Your task to perform on an android device: add a contact in the contacts app Image 0: 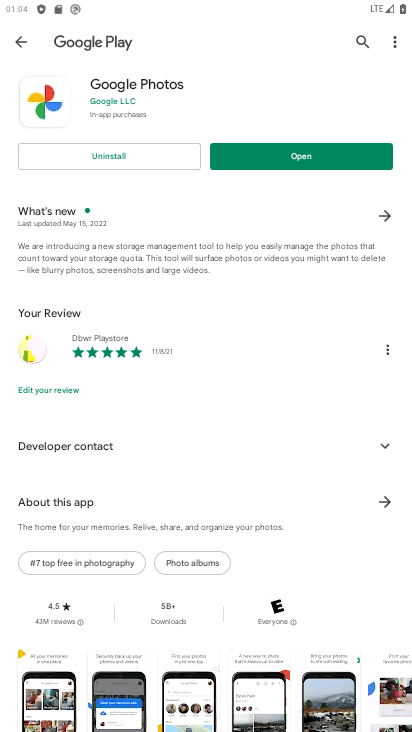
Step 0: press home button
Your task to perform on an android device: add a contact in the contacts app Image 1: 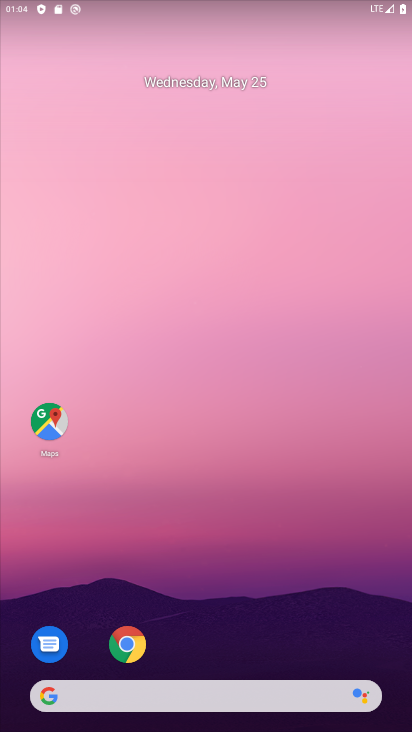
Step 1: drag from (290, 529) to (233, 152)
Your task to perform on an android device: add a contact in the contacts app Image 2: 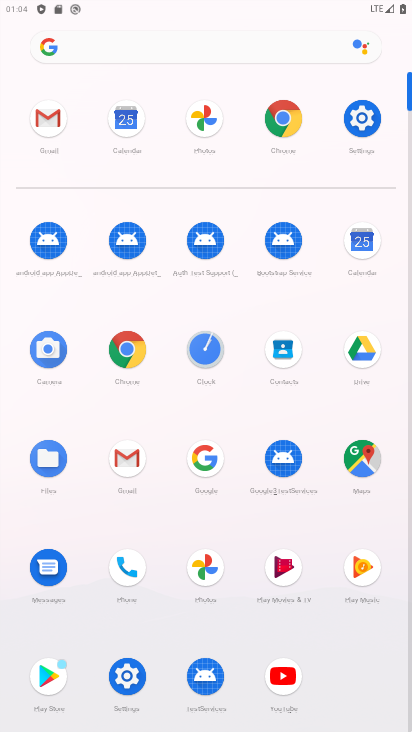
Step 2: click (279, 350)
Your task to perform on an android device: add a contact in the contacts app Image 3: 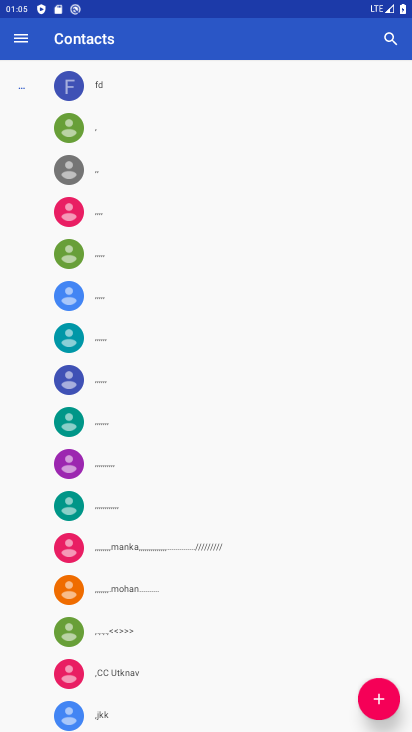
Step 3: click (383, 700)
Your task to perform on an android device: add a contact in the contacts app Image 4: 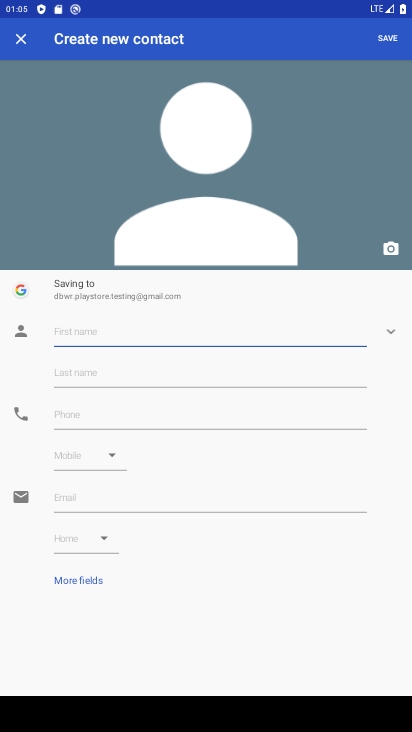
Step 4: type " vfjckd"
Your task to perform on an android device: add a contact in the contacts app Image 5: 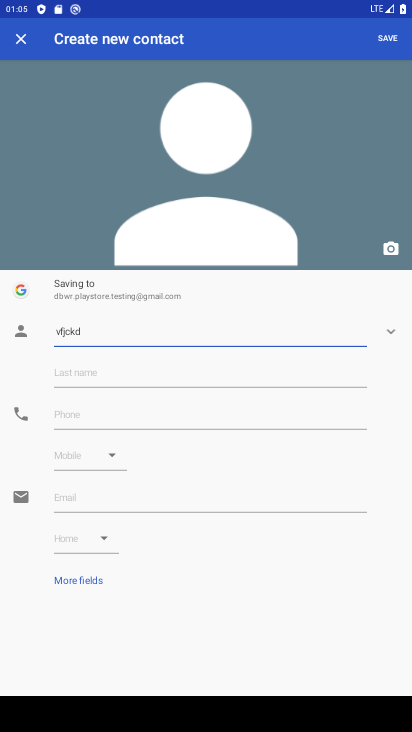
Step 5: click (108, 415)
Your task to perform on an android device: add a contact in the contacts app Image 6: 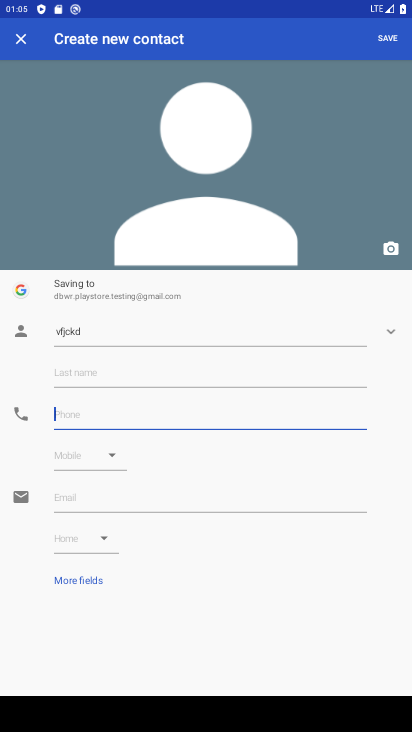
Step 6: type "7658493"
Your task to perform on an android device: add a contact in the contacts app Image 7: 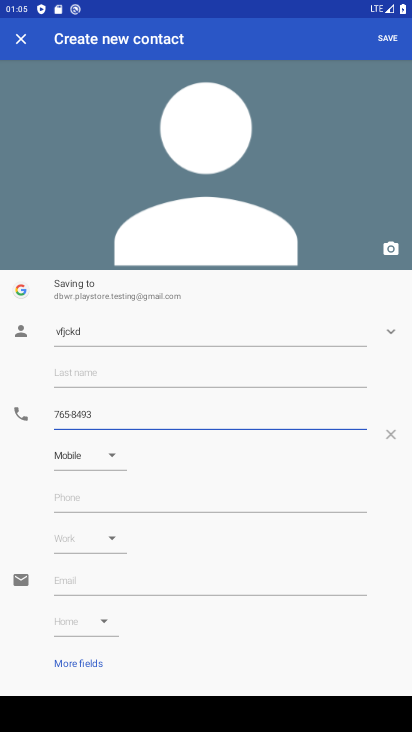
Step 7: click (391, 38)
Your task to perform on an android device: add a contact in the contacts app Image 8: 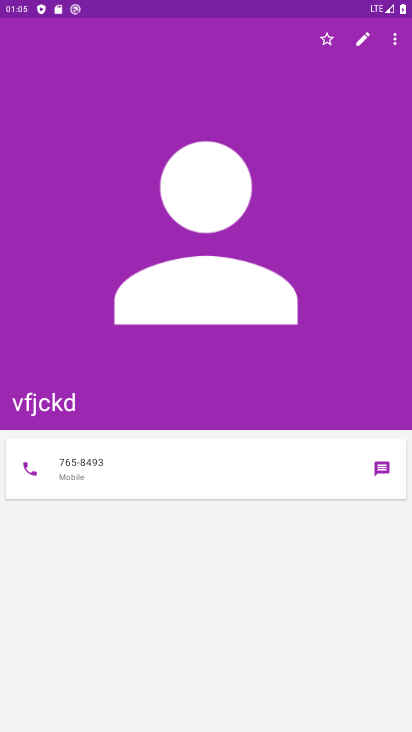
Step 8: task complete